Your task to perform on an android device: Open my contact list Image 0: 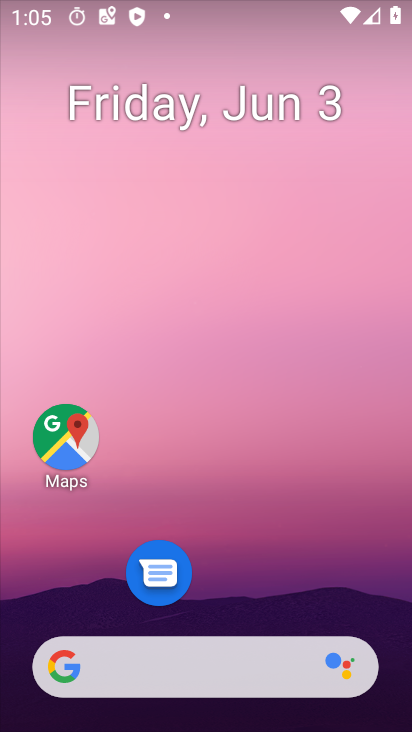
Step 0: drag from (280, 607) to (260, 163)
Your task to perform on an android device: Open my contact list Image 1: 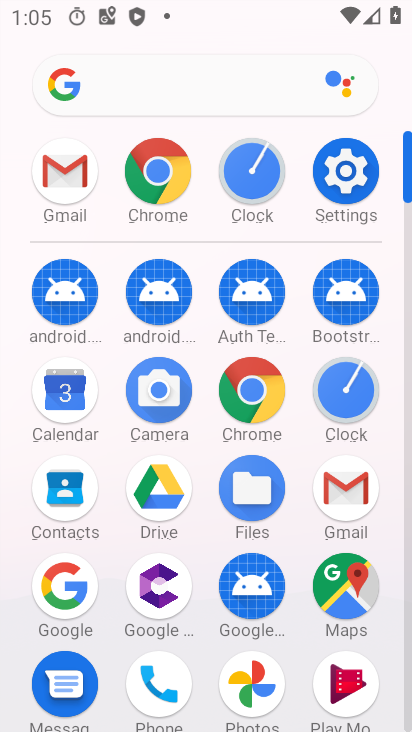
Step 1: click (170, 675)
Your task to perform on an android device: Open my contact list Image 2: 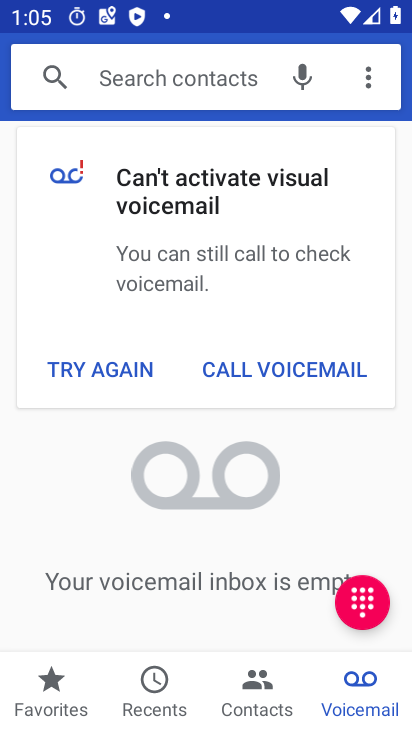
Step 2: click (269, 697)
Your task to perform on an android device: Open my contact list Image 3: 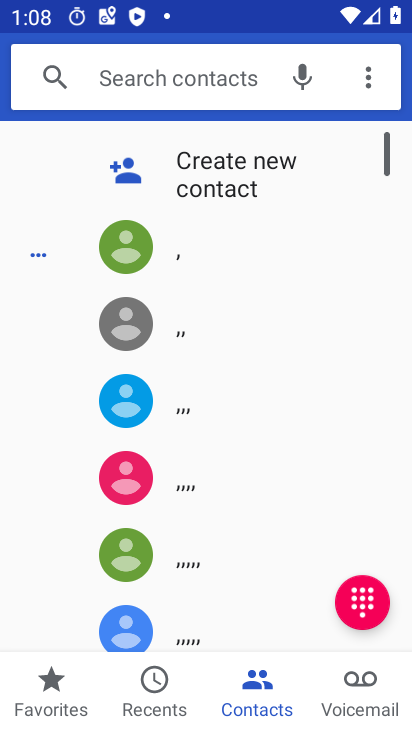
Step 3: task complete